Your task to perform on an android device: toggle translation in the chrome app Image 0: 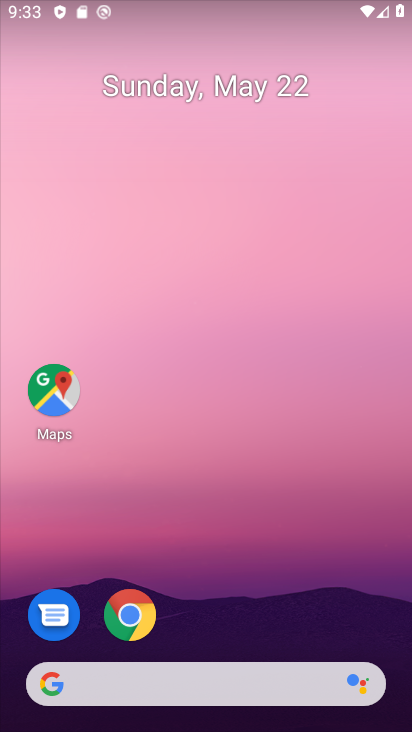
Step 0: click (129, 616)
Your task to perform on an android device: toggle translation in the chrome app Image 1: 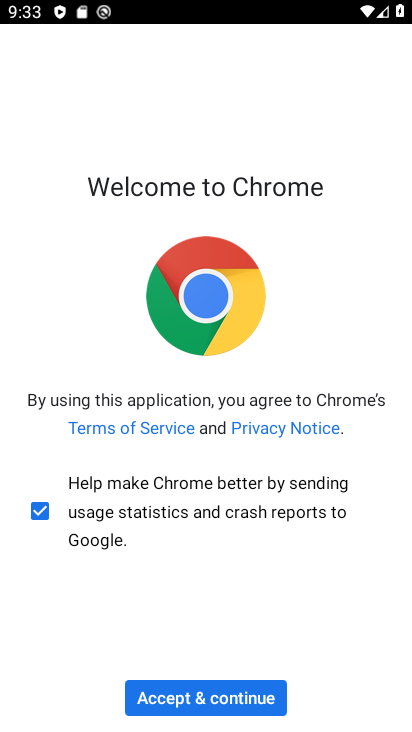
Step 1: click (207, 691)
Your task to perform on an android device: toggle translation in the chrome app Image 2: 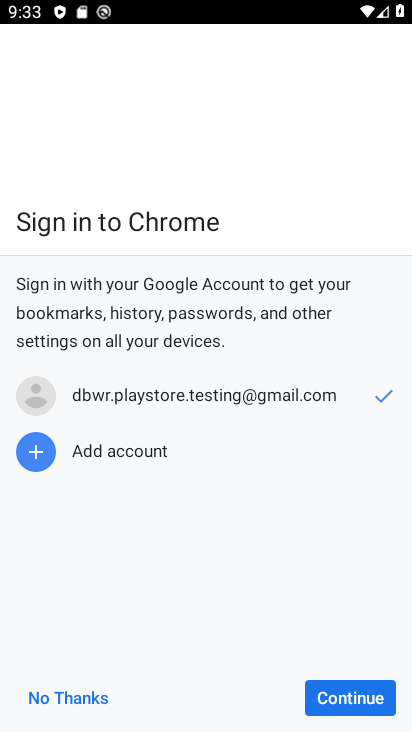
Step 2: click (334, 695)
Your task to perform on an android device: toggle translation in the chrome app Image 3: 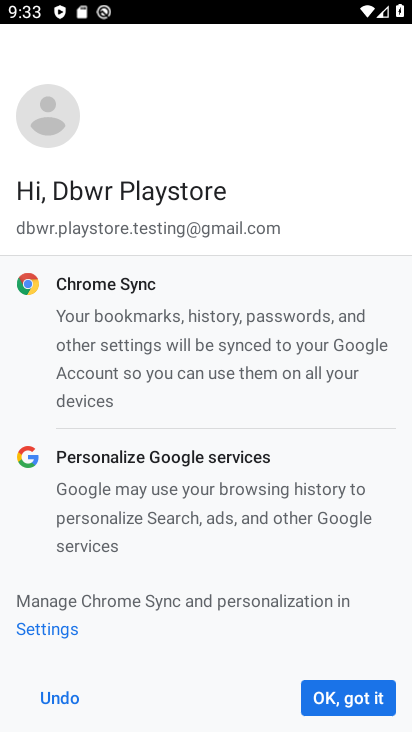
Step 3: click (331, 690)
Your task to perform on an android device: toggle translation in the chrome app Image 4: 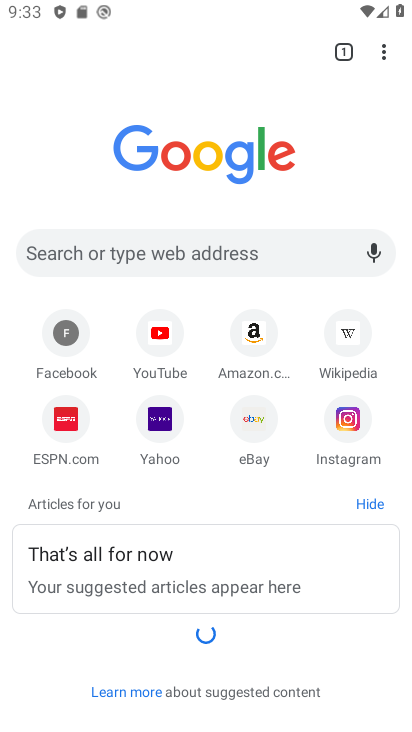
Step 4: drag from (391, 42) to (237, 431)
Your task to perform on an android device: toggle translation in the chrome app Image 5: 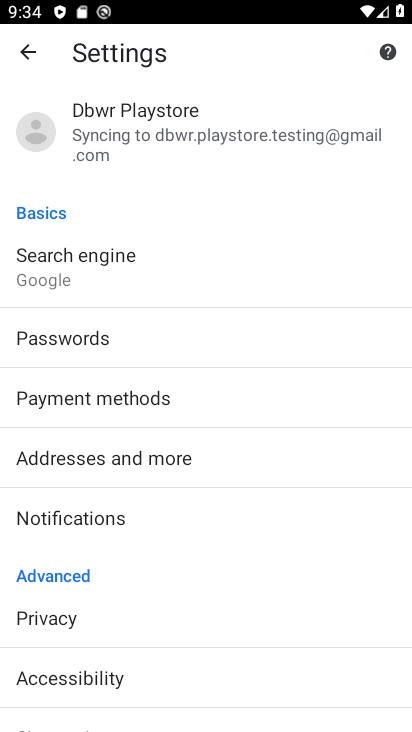
Step 5: drag from (177, 668) to (243, 219)
Your task to perform on an android device: toggle translation in the chrome app Image 6: 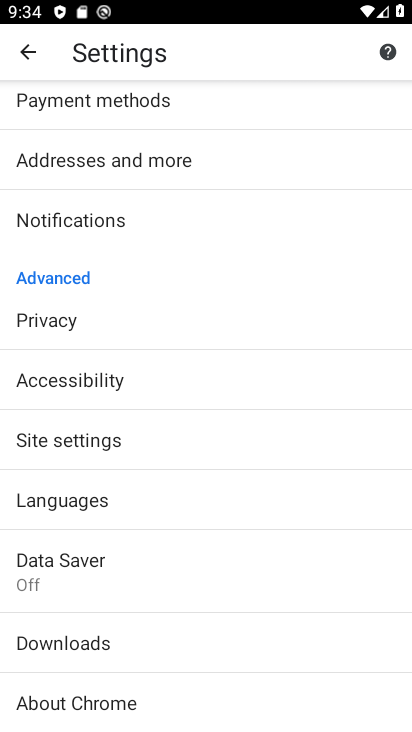
Step 6: click (95, 503)
Your task to perform on an android device: toggle translation in the chrome app Image 7: 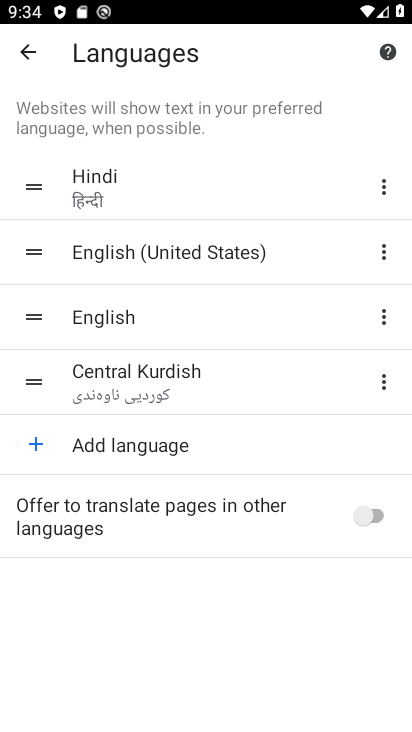
Step 7: click (358, 515)
Your task to perform on an android device: toggle translation in the chrome app Image 8: 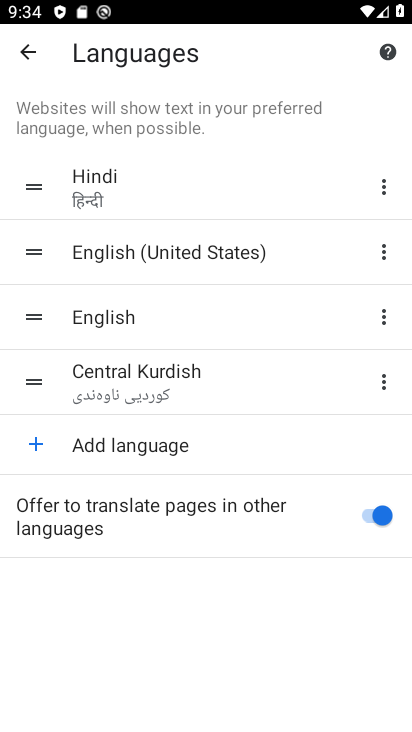
Step 8: task complete